Your task to perform on an android device: uninstall "File Manager" Image 0: 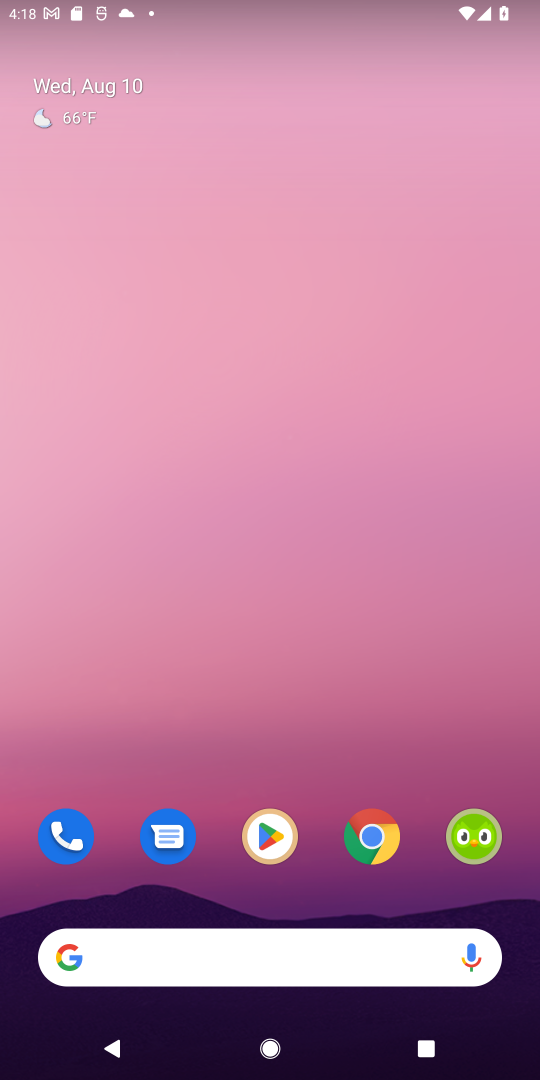
Step 0: drag from (244, 881) to (229, 246)
Your task to perform on an android device: uninstall "File Manager" Image 1: 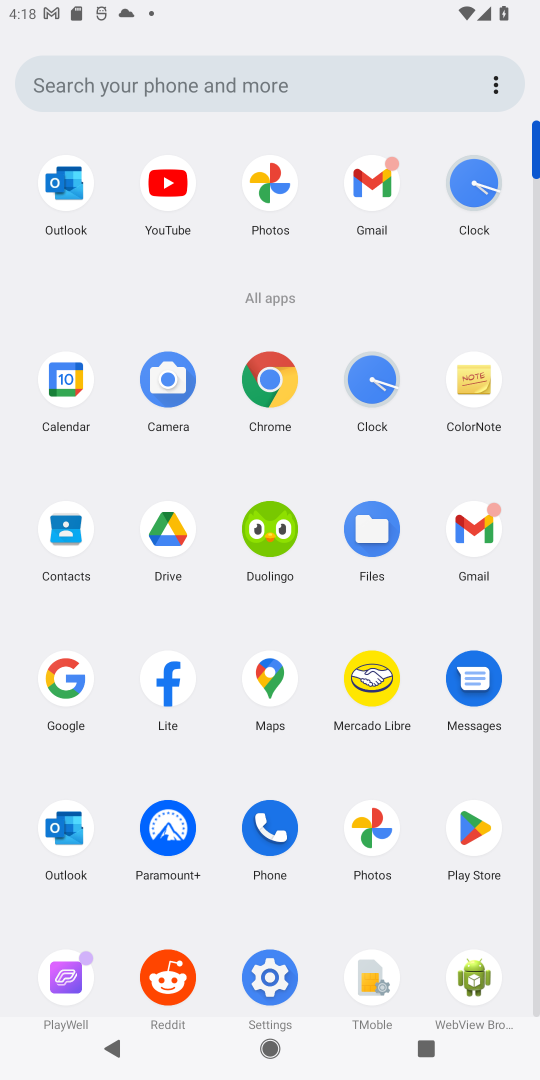
Step 1: click (261, 672)
Your task to perform on an android device: uninstall "File Manager" Image 2: 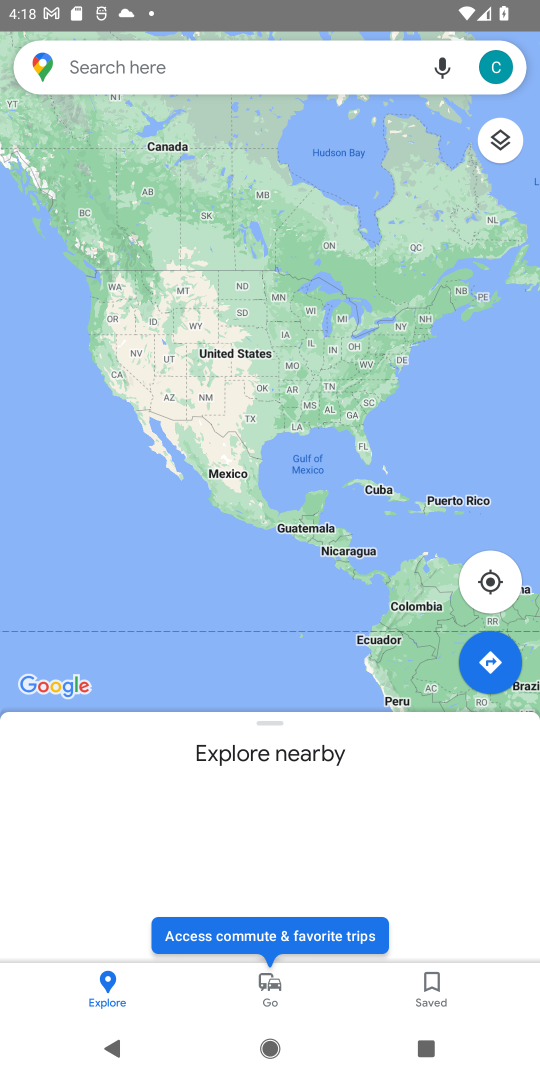
Step 2: press home button
Your task to perform on an android device: uninstall "File Manager" Image 3: 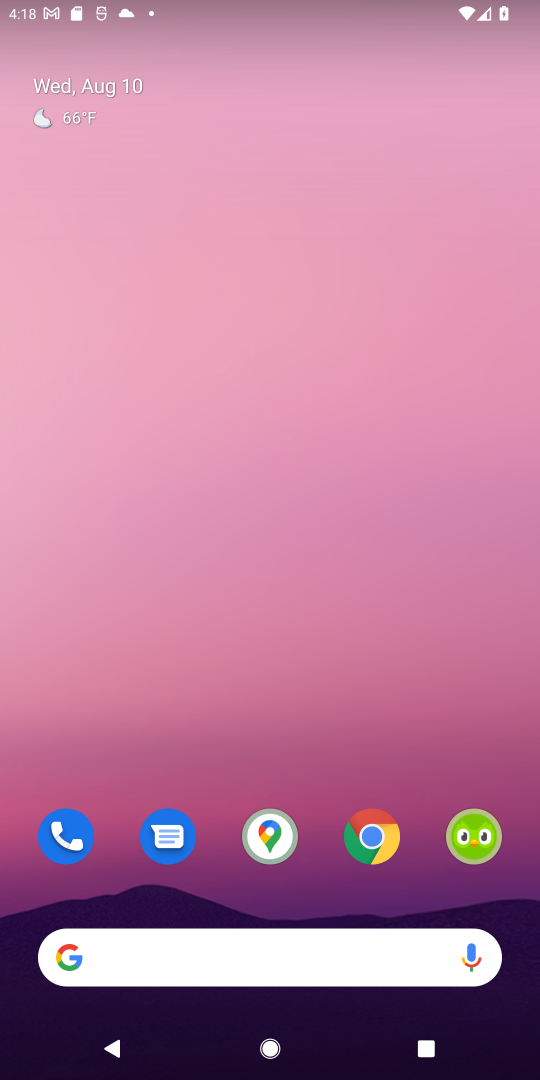
Step 3: drag from (286, 959) to (284, 462)
Your task to perform on an android device: uninstall "File Manager" Image 4: 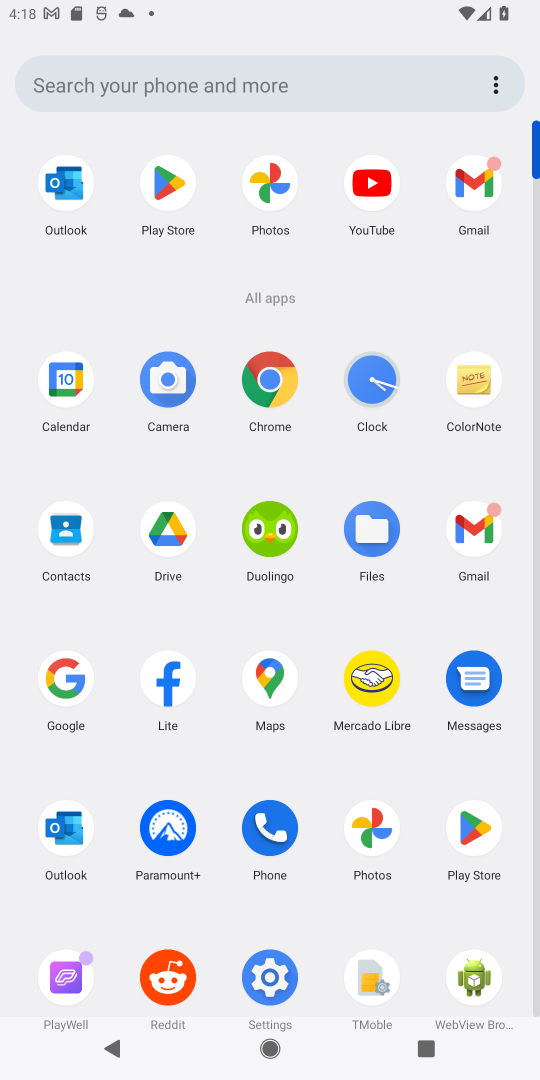
Step 4: drag from (237, 938) to (320, 441)
Your task to perform on an android device: uninstall "File Manager" Image 5: 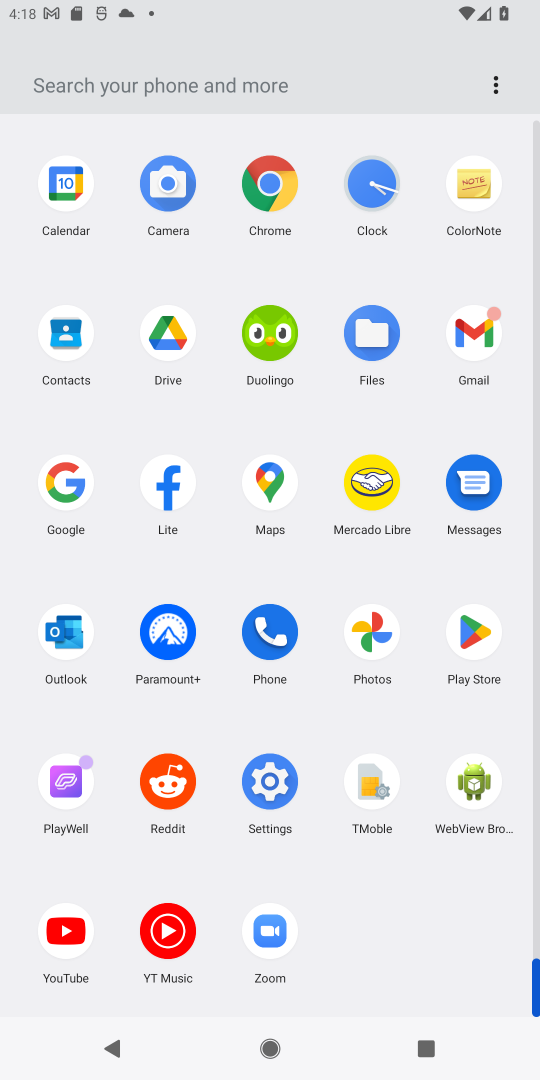
Step 5: click (463, 633)
Your task to perform on an android device: uninstall "File Manager" Image 6: 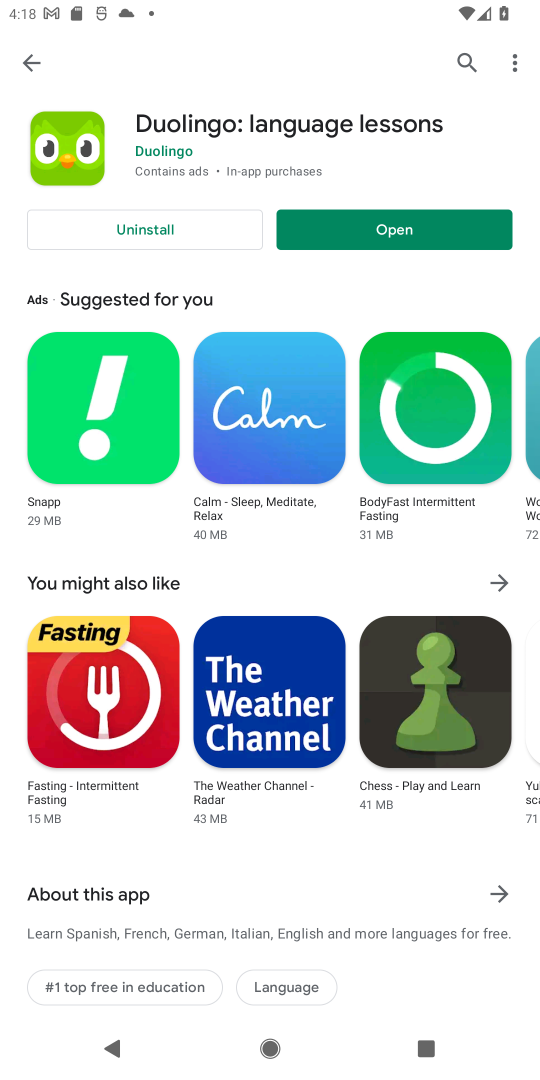
Step 6: click (33, 54)
Your task to perform on an android device: uninstall "File Manager" Image 7: 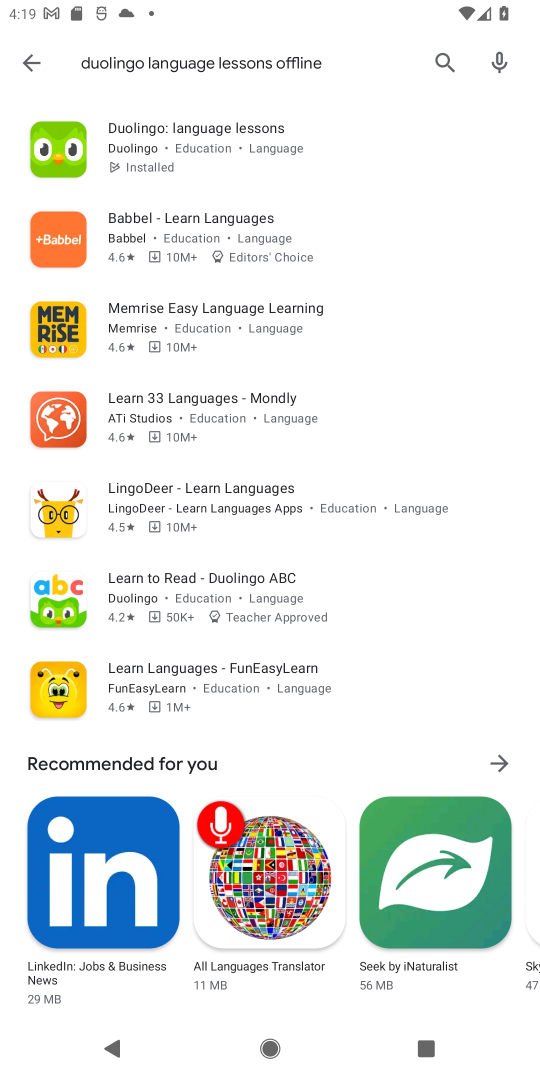
Step 7: click (45, 56)
Your task to perform on an android device: uninstall "File Manager" Image 8: 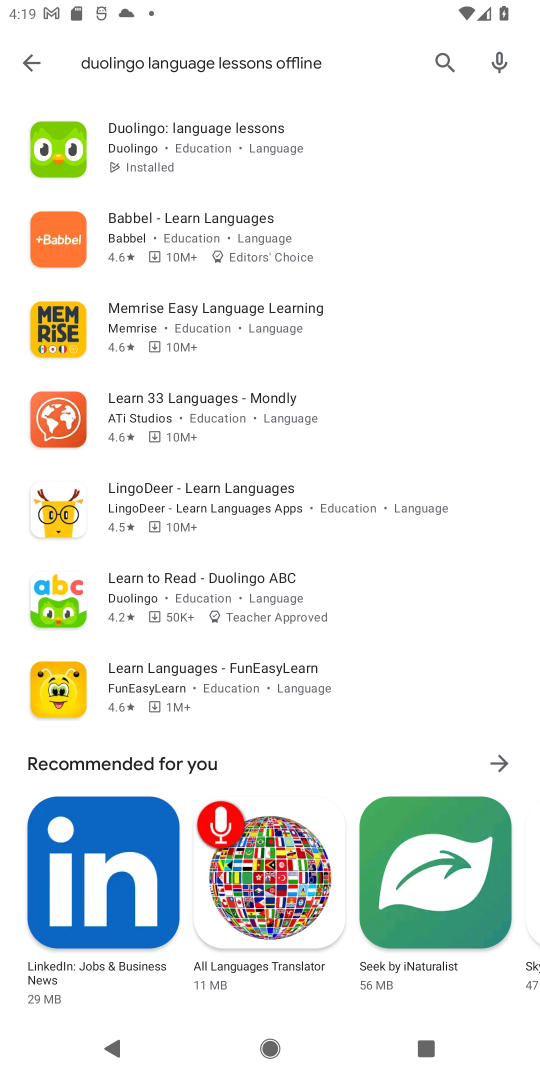
Step 8: click (50, 59)
Your task to perform on an android device: uninstall "File Manager" Image 9: 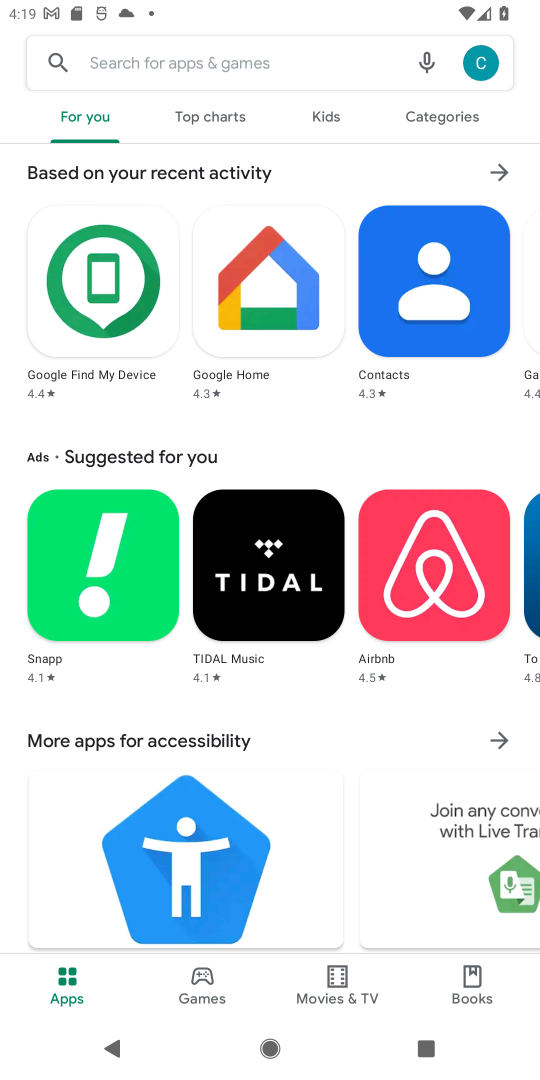
Step 9: click (237, 57)
Your task to perform on an android device: uninstall "File Manager" Image 10: 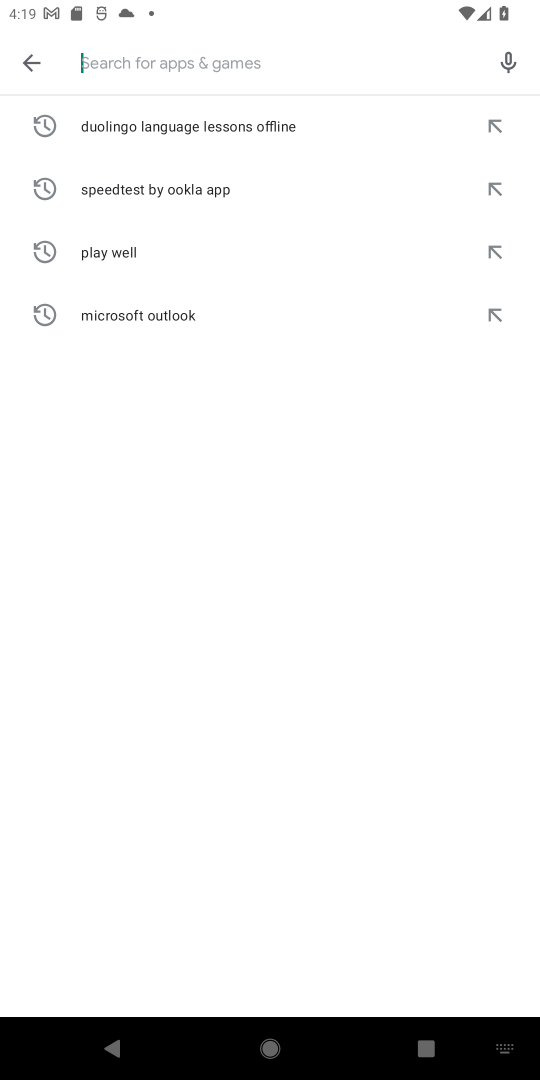
Step 10: type "File Manager" "
Your task to perform on an android device: uninstall "File Manager" Image 11: 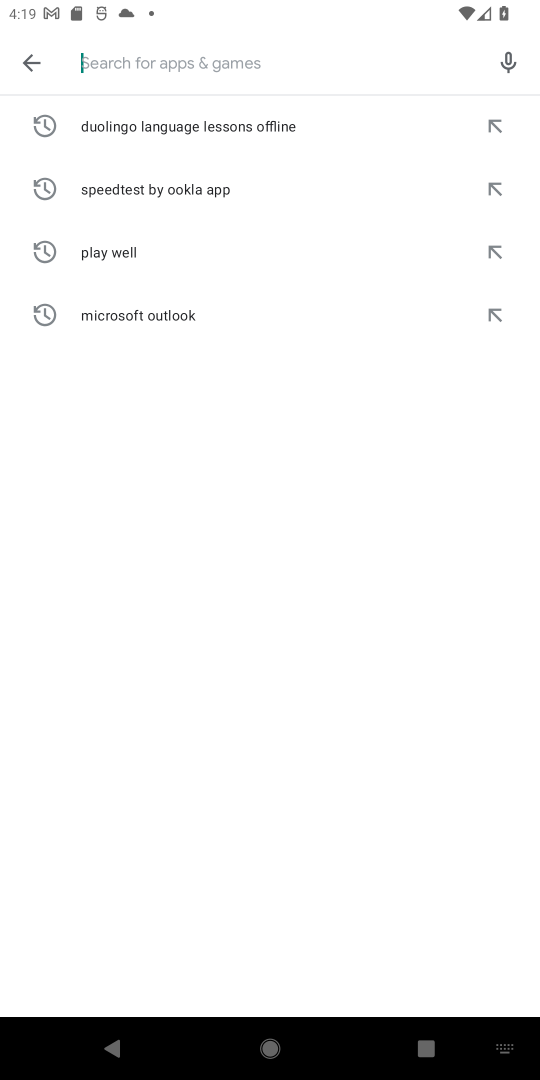
Step 11: click (256, 48)
Your task to perform on an android device: uninstall "File Manager" Image 12: 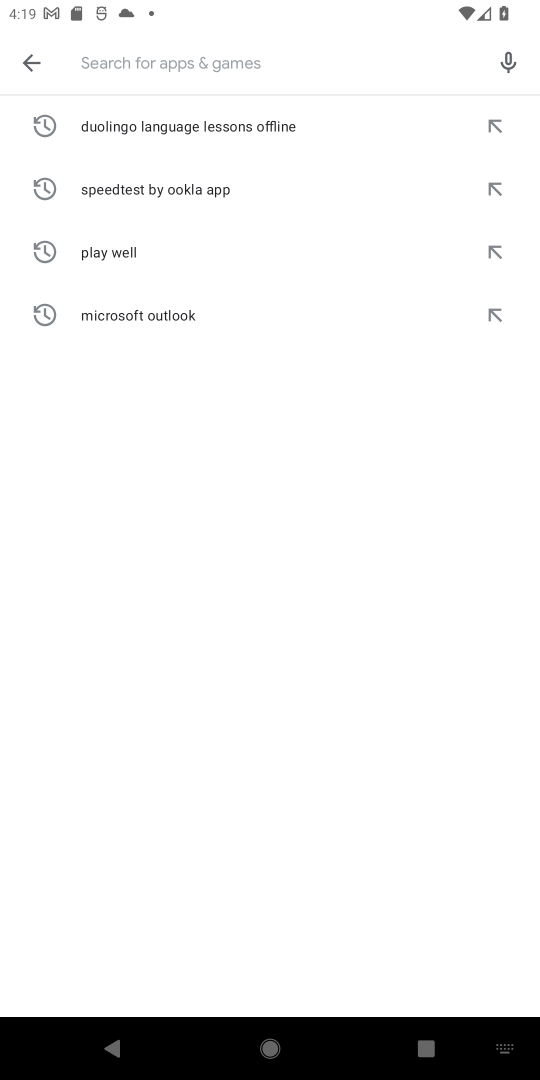
Step 12: type "file manager"
Your task to perform on an android device: uninstall "File Manager" Image 13: 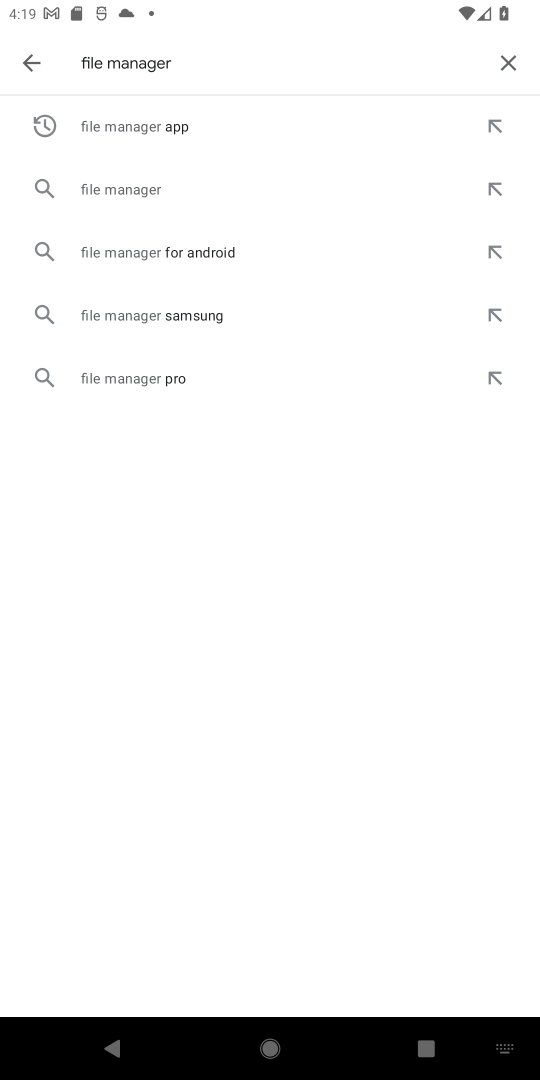
Step 13: click (175, 127)
Your task to perform on an android device: uninstall "File Manager" Image 14: 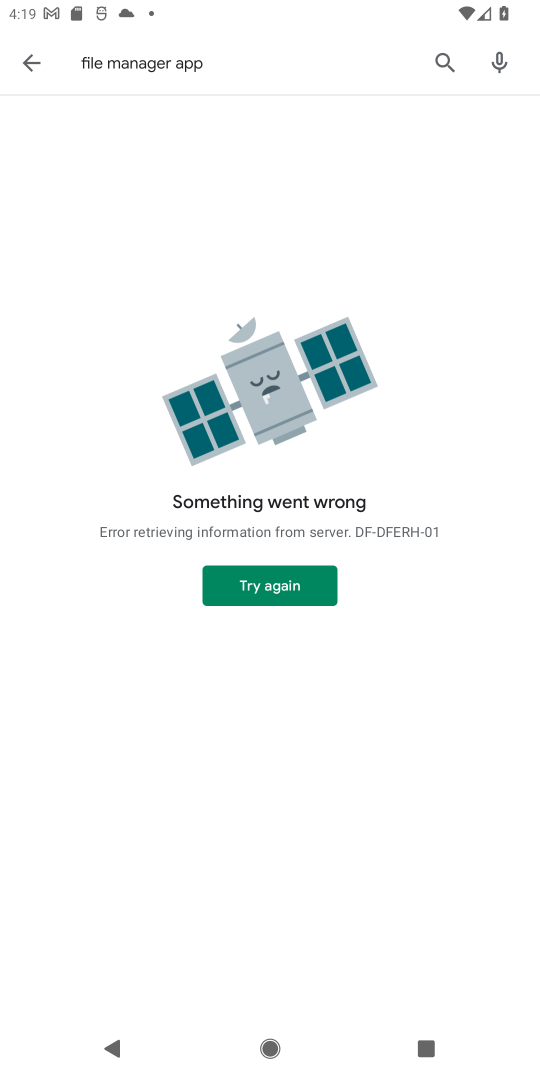
Step 14: task complete